Your task to perform on an android device: turn off picture-in-picture Image 0: 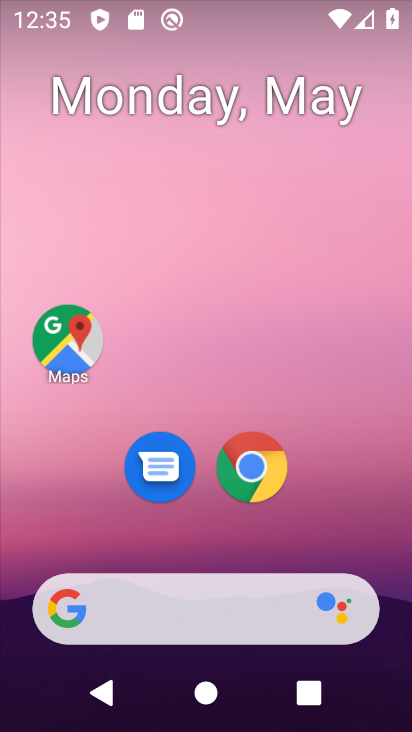
Step 0: click (265, 474)
Your task to perform on an android device: turn off picture-in-picture Image 1: 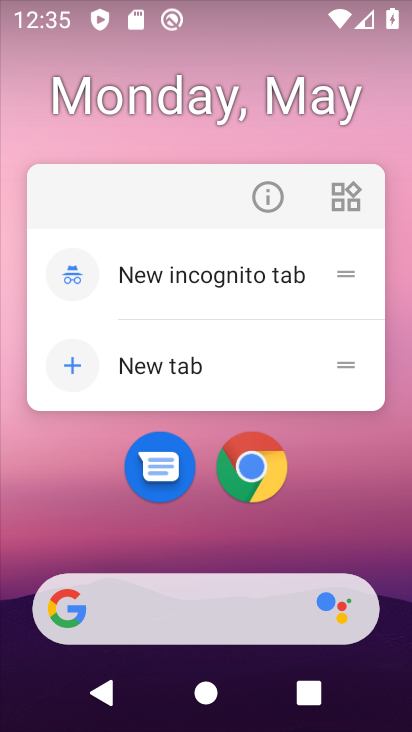
Step 1: click (253, 203)
Your task to perform on an android device: turn off picture-in-picture Image 2: 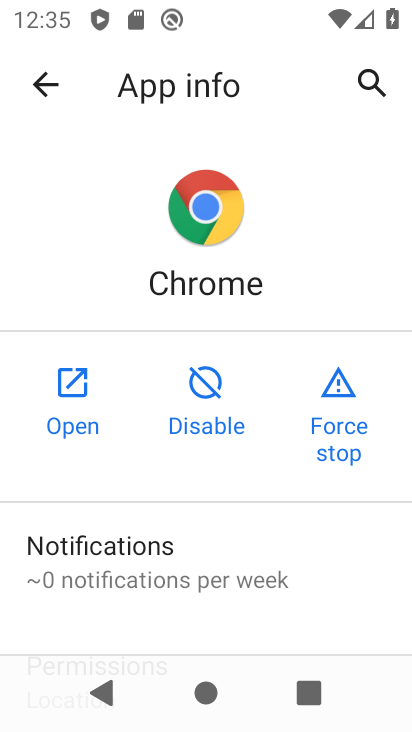
Step 2: drag from (298, 552) to (151, 4)
Your task to perform on an android device: turn off picture-in-picture Image 3: 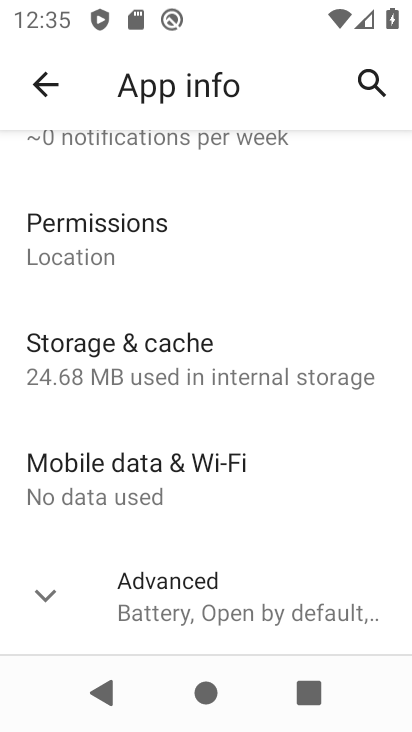
Step 3: drag from (228, 311) to (183, 64)
Your task to perform on an android device: turn off picture-in-picture Image 4: 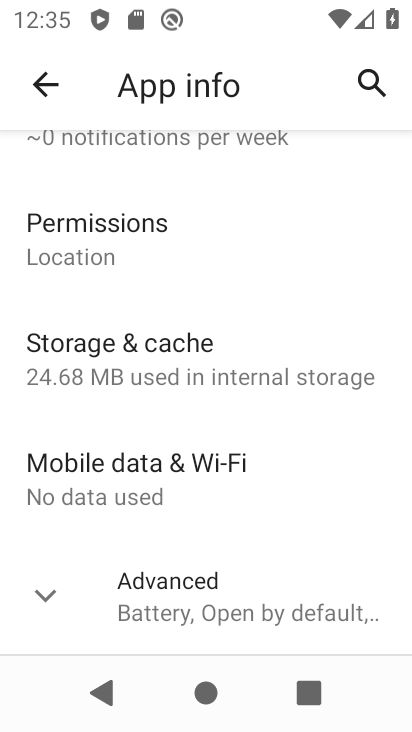
Step 4: click (232, 590)
Your task to perform on an android device: turn off picture-in-picture Image 5: 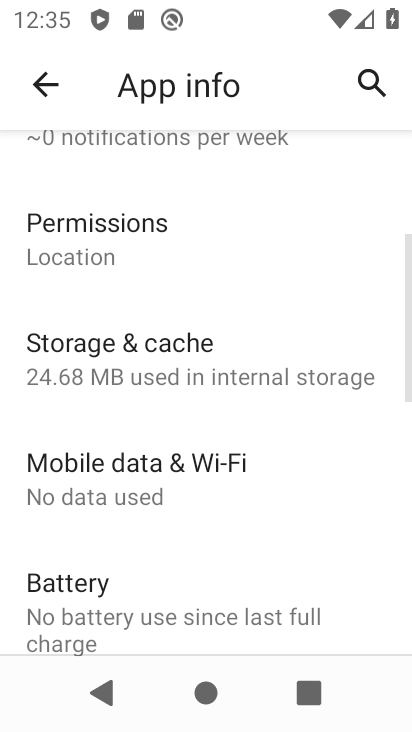
Step 5: drag from (208, 493) to (202, 241)
Your task to perform on an android device: turn off picture-in-picture Image 6: 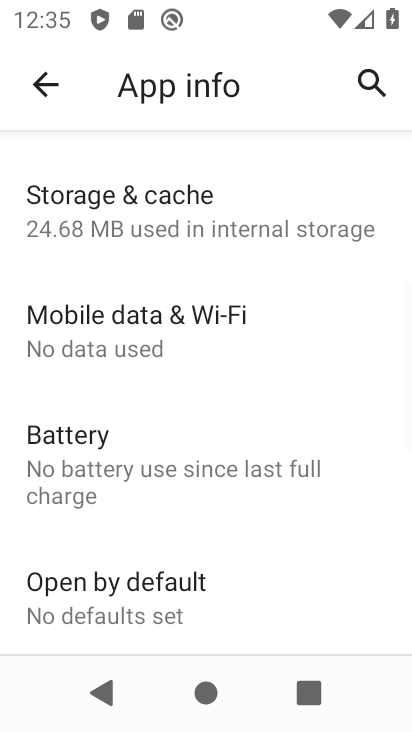
Step 6: drag from (236, 425) to (220, 117)
Your task to perform on an android device: turn off picture-in-picture Image 7: 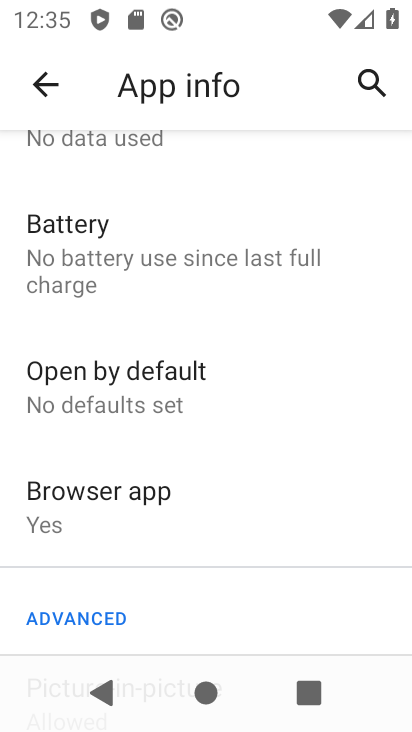
Step 7: drag from (239, 437) to (179, 57)
Your task to perform on an android device: turn off picture-in-picture Image 8: 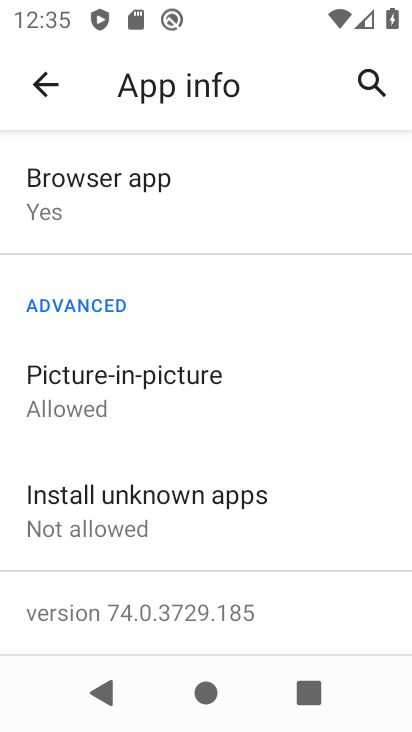
Step 8: click (141, 383)
Your task to perform on an android device: turn off picture-in-picture Image 9: 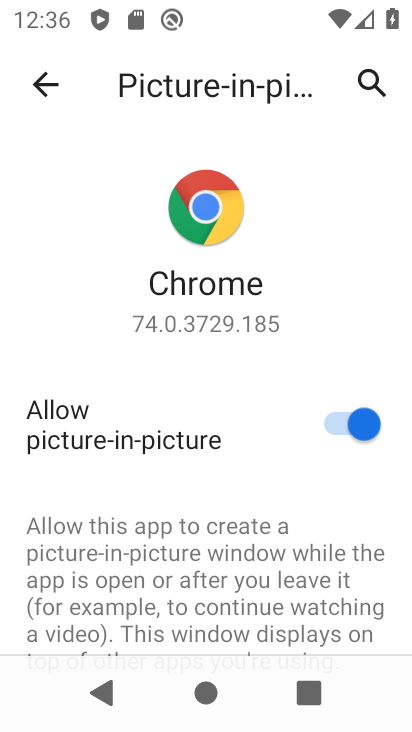
Step 9: click (163, 442)
Your task to perform on an android device: turn off picture-in-picture Image 10: 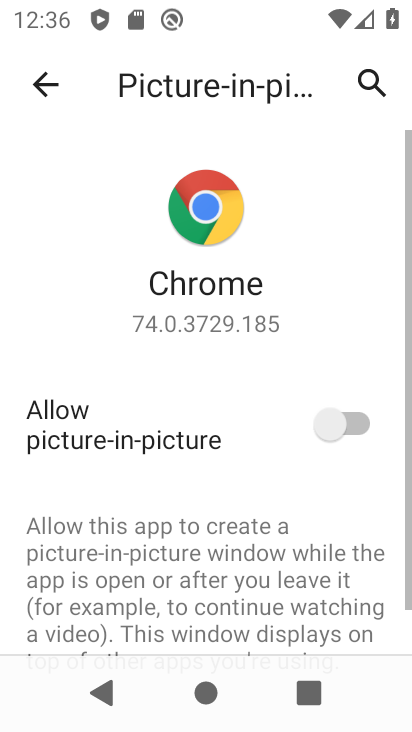
Step 10: task complete